Your task to perform on an android device: toggle improve location accuracy Image 0: 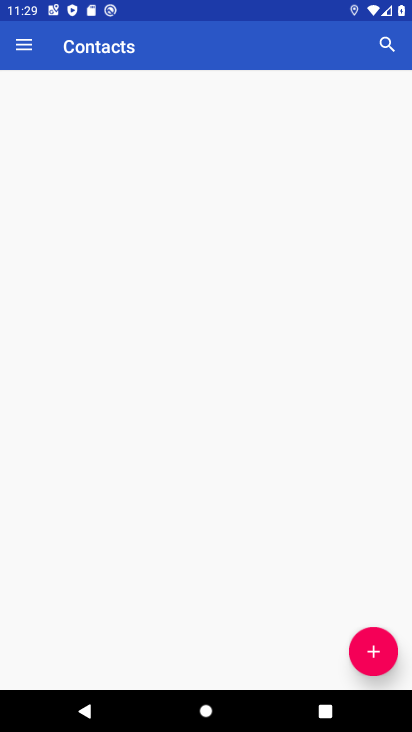
Step 0: drag from (247, 508) to (176, 84)
Your task to perform on an android device: toggle improve location accuracy Image 1: 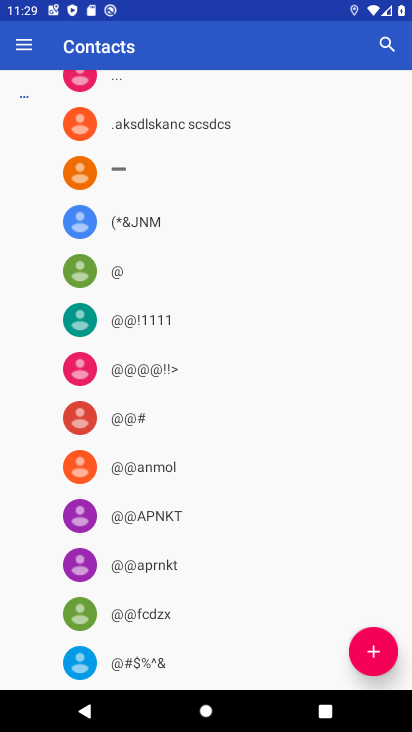
Step 1: press home button
Your task to perform on an android device: toggle improve location accuracy Image 2: 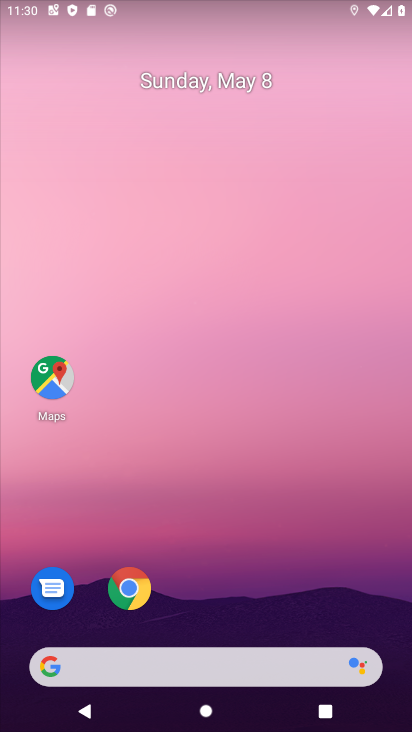
Step 2: drag from (227, 550) to (115, 70)
Your task to perform on an android device: toggle improve location accuracy Image 3: 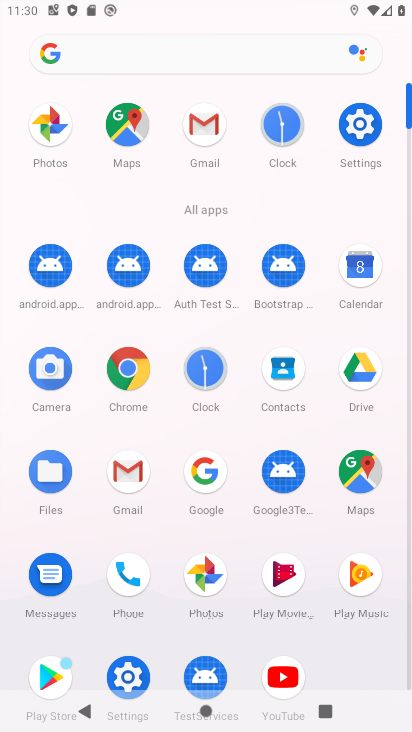
Step 3: click (357, 126)
Your task to perform on an android device: toggle improve location accuracy Image 4: 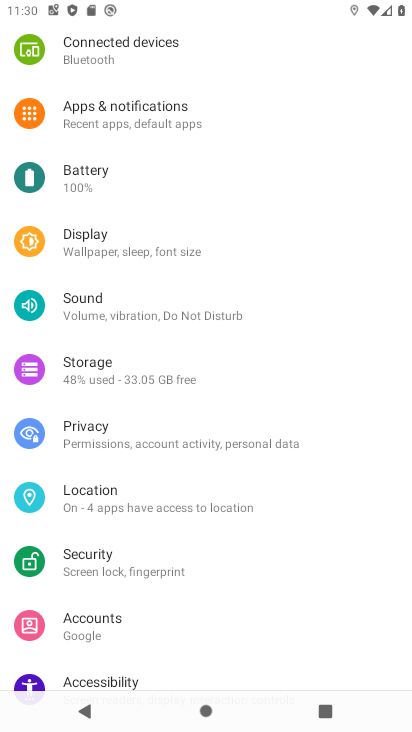
Step 4: click (83, 499)
Your task to perform on an android device: toggle improve location accuracy Image 5: 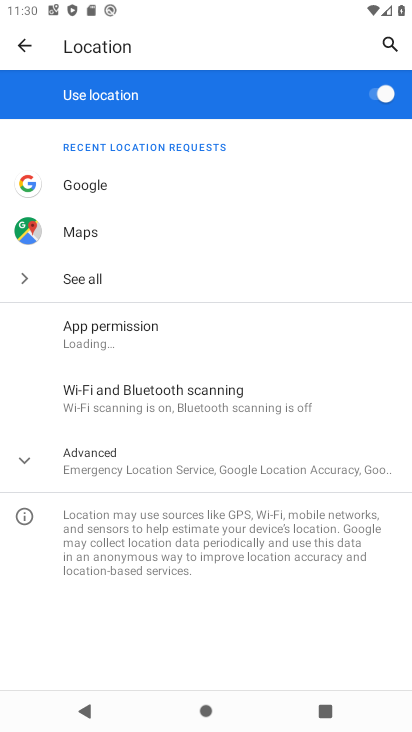
Step 5: click (50, 469)
Your task to perform on an android device: toggle improve location accuracy Image 6: 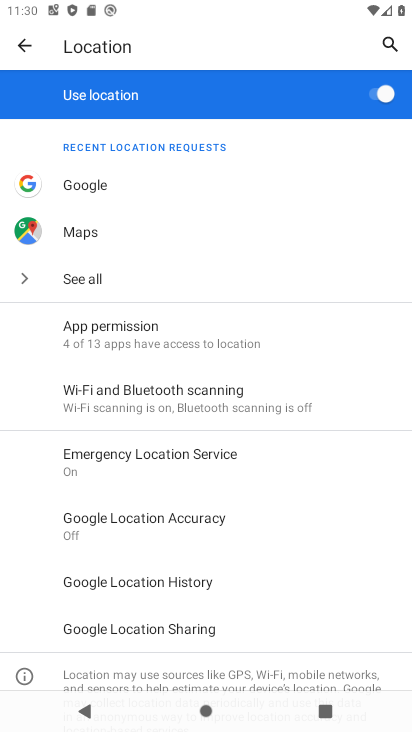
Step 6: click (137, 523)
Your task to perform on an android device: toggle improve location accuracy Image 7: 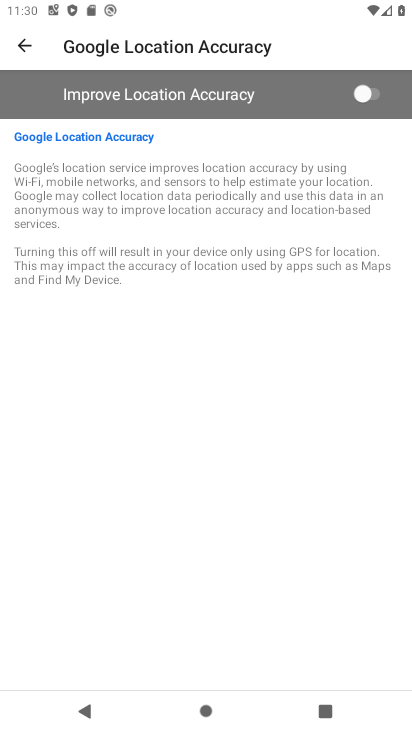
Step 7: click (354, 95)
Your task to perform on an android device: toggle improve location accuracy Image 8: 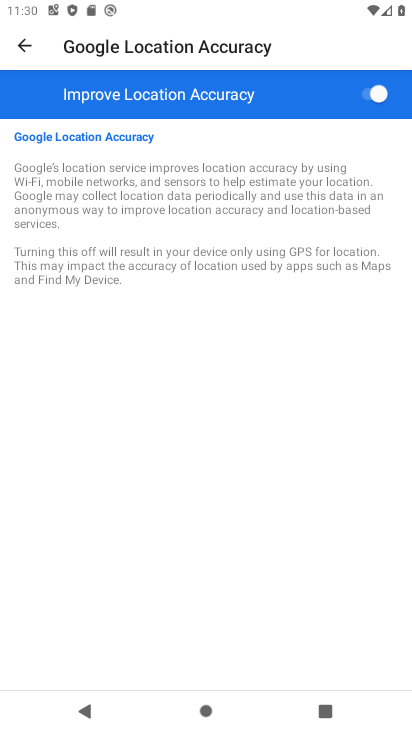
Step 8: task complete